Your task to perform on an android device: Open Google Chrome and click the shortcut for Amazon.com Image 0: 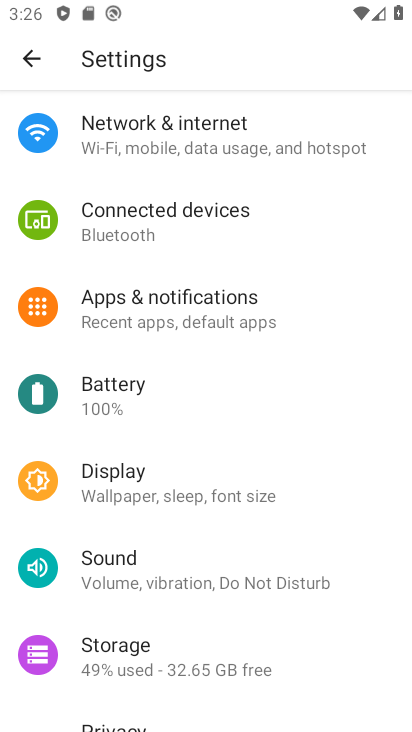
Step 0: press home button
Your task to perform on an android device: Open Google Chrome and click the shortcut for Amazon.com Image 1: 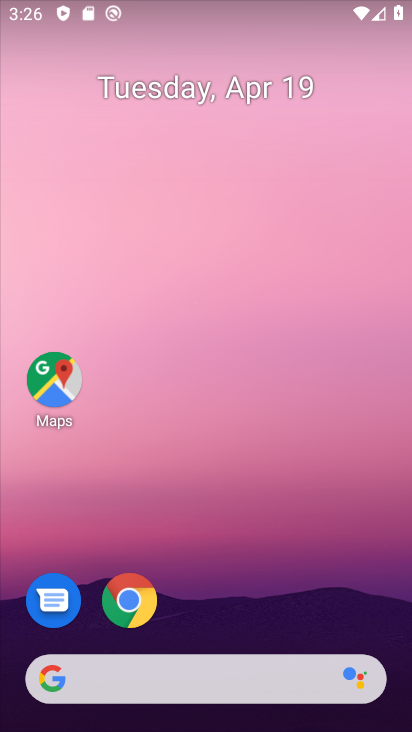
Step 1: press home button
Your task to perform on an android device: Open Google Chrome and click the shortcut for Amazon.com Image 2: 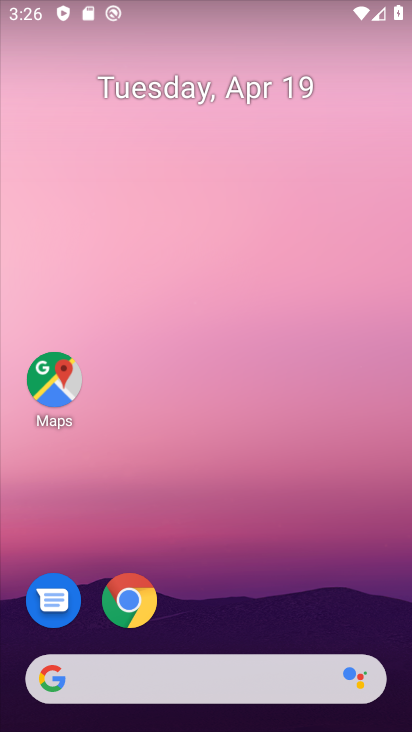
Step 2: click (138, 598)
Your task to perform on an android device: Open Google Chrome and click the shortcut for Amazon.com Image 3: 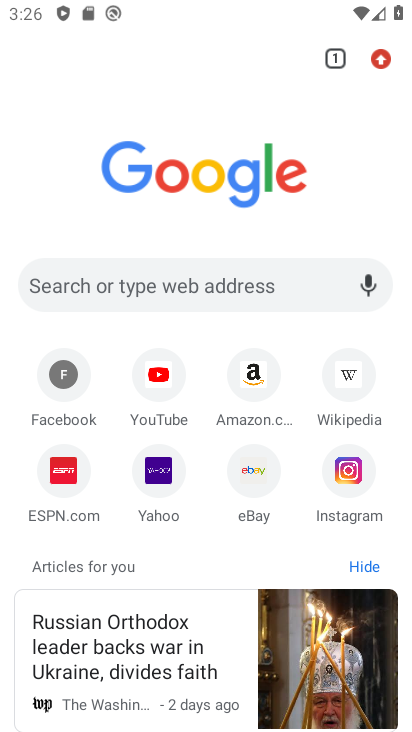
Step 3: click (268, 362)
Your task to perform on an android device: Open Google Chrome and click the shortcut for Amazon.com Image 4: 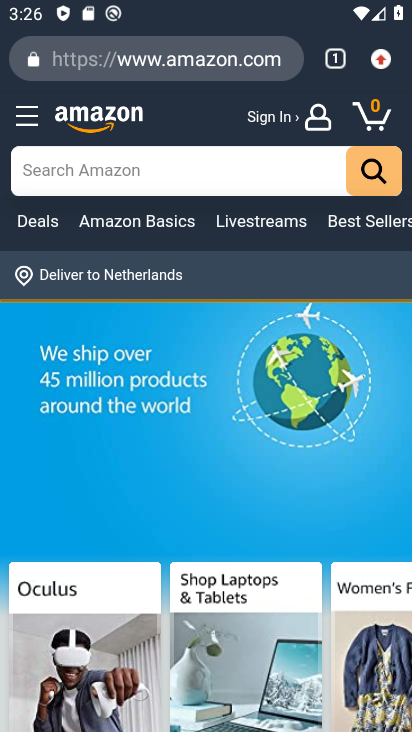
Step 4: task complete